Your task to perform on an android device: turn on priority inbox in the gmail app Image 0: 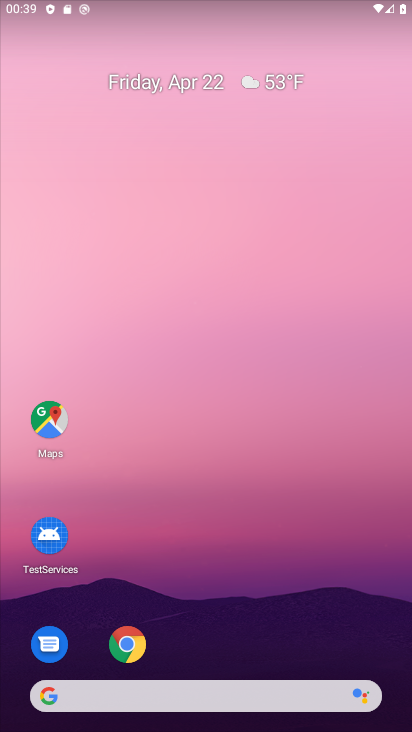
Step 0: drag from (301, 608) to (236, 47)
Your task to perform on an android device: turn on priority inbox in the gmail app Image 1: 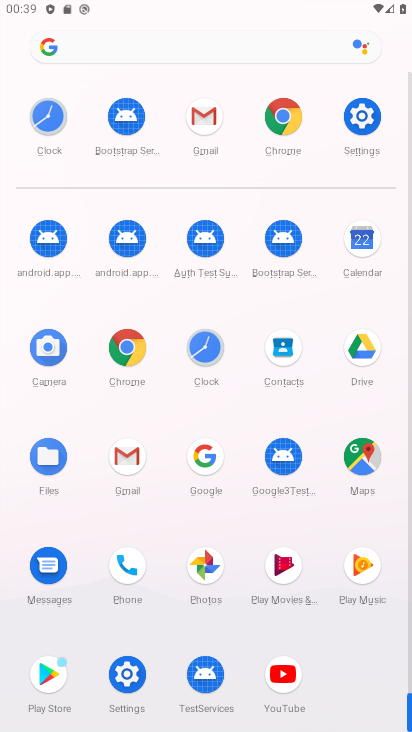
Step 1: click (353, 118)
Your task to perform on an android device: turn on priority inbox in the gmail app Image 2: 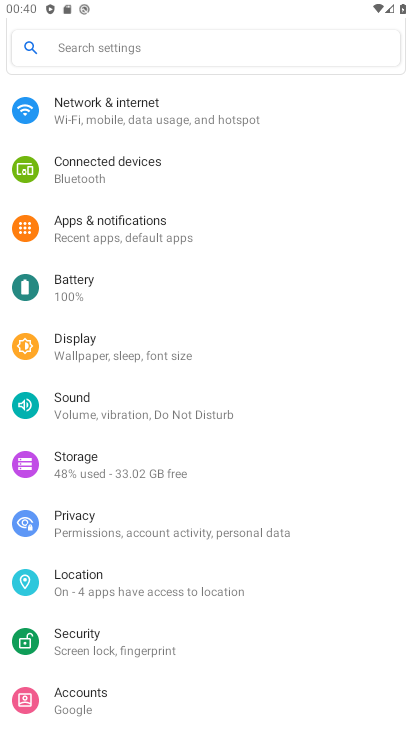
Step 2: drag from (146, 535) to (151, 611)
Your task to perform on an android device: turn on priority inbox in the gmail app Image 3: 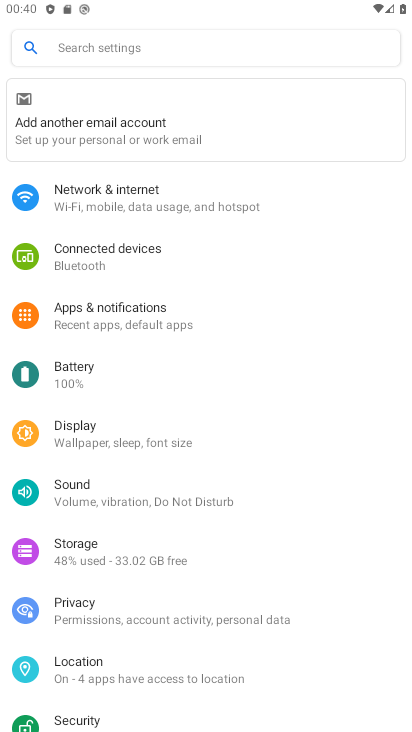
Step 3: press home button
Your task to perform on an android device: turn on priority inbox in the gmail app Image 4: 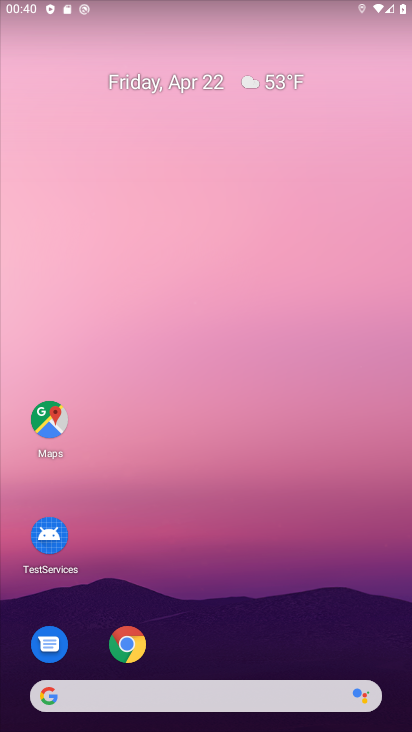
Step 4: drag from (227, 652) to (287, 83)
Your task to perform on an android device: turn on priority inbox in the gmail app Image 5: 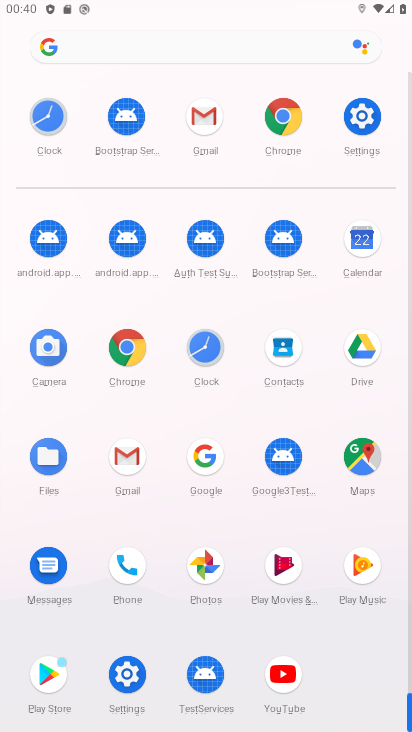
Step 5: click (131, 450)
Your task to perform on an android device: turn on priority inbox in the gmail app Image 6: 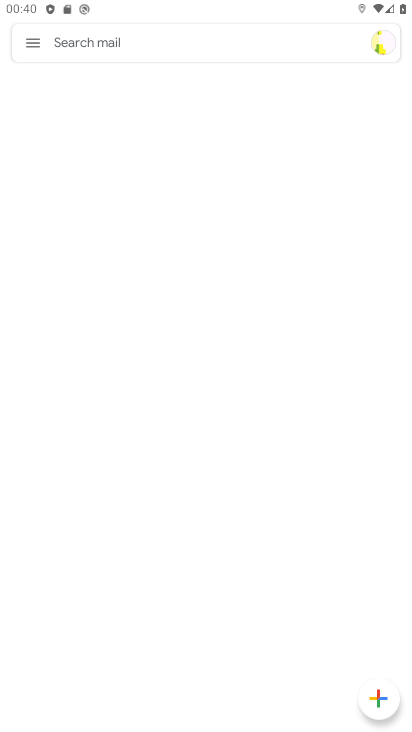
Step 6: click (32, 40)
Your task to perform on an android device: turn on priority inbox in the gmail app Image 7: 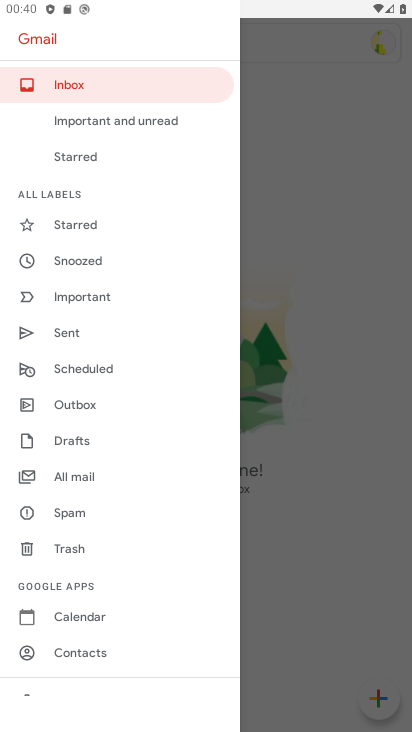
Step 7: drag from (86, 614) to (131, 222)
Your task to perform on an android device: turn on priority inbox in the gmail app Image 8: 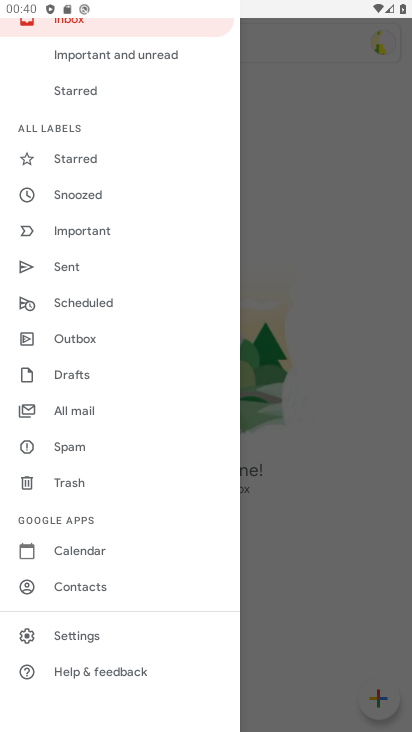
Step 8: click (71, 637)
Your task to perform on an android device: turn on priority inbox in the gmail app Image 9: 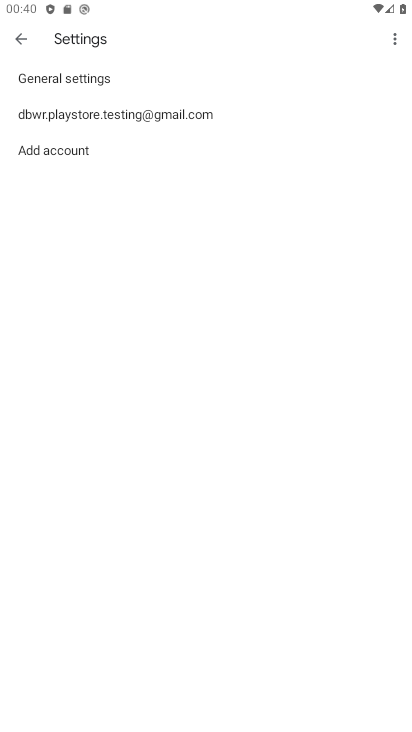
Step 9: click (98, 113)
Your task to perform on an android device: turn on priority inbox in the gmail app Image 10: 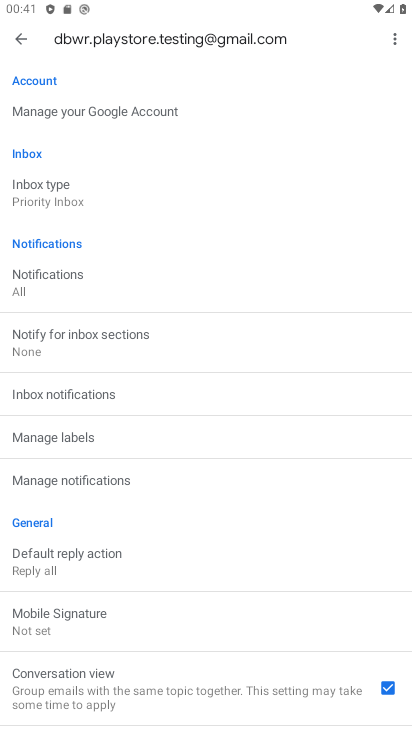
Step 10: click (85, 197)
Your task to perform on an android device: turn on priority inbox in the gmail app Image 11: 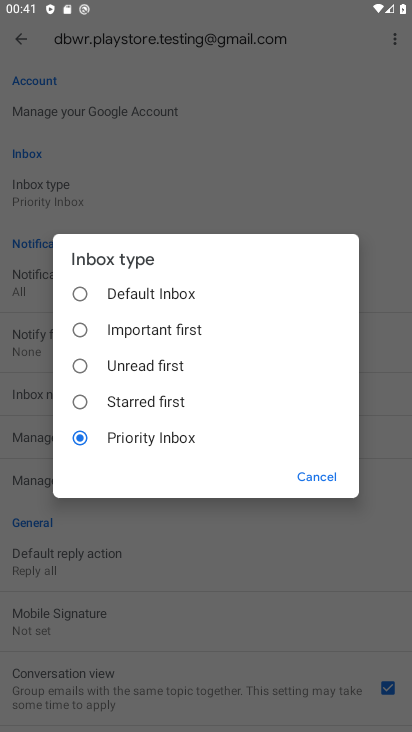
Step 11: task complete